Your task to perform on an android device: check out phone information Image 0: 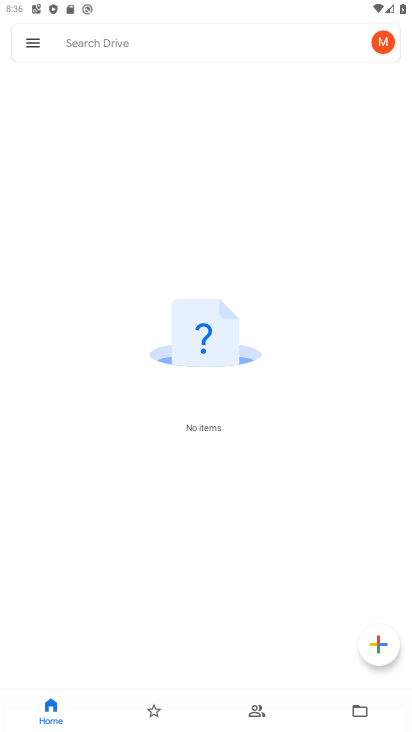
Step 0: drag from (134, 545) to (213, 302)
Your task to perform on an android device: check out phone information Image 1: 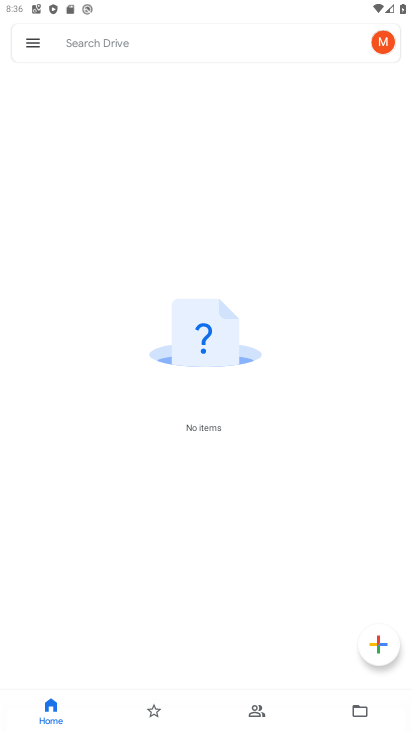
Step 1: press home button
Your task to perform on an android device: check out phone information Image 2: 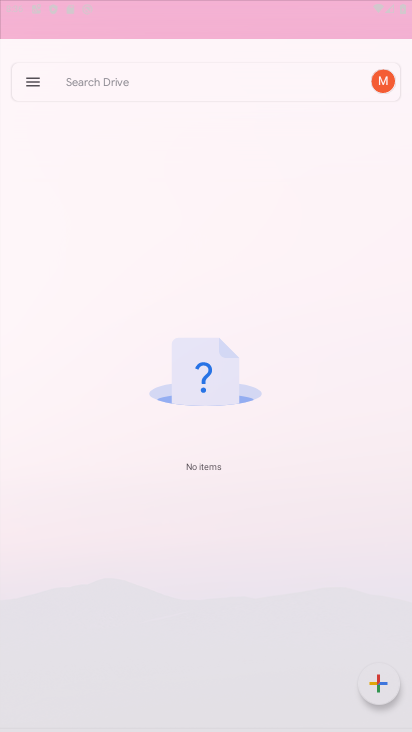
Step 2: drag from (250, 597) to (278, 310)
Your task to perform on an android device: check out phone information Image 3: 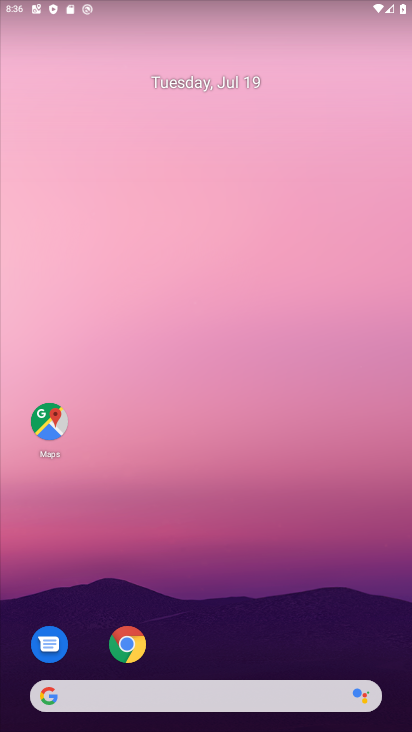
Step 3: drag from (189, 522) to (65, 29)
Your task to perform on an android device: check out phone information Image 4: 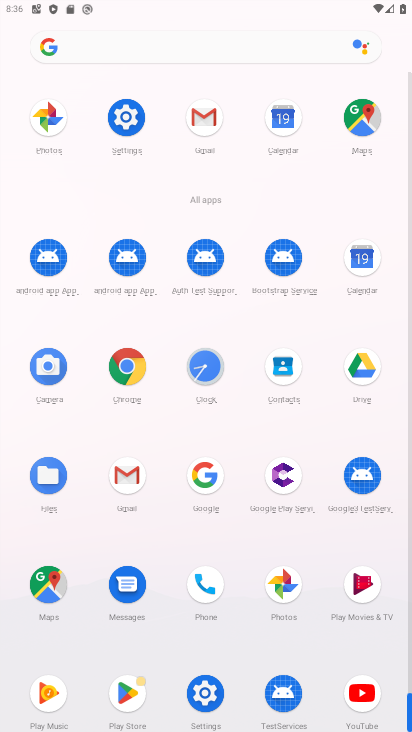
Step 4: click (124, 113)
Your task to perform on an android device: check out phone information Image 5: 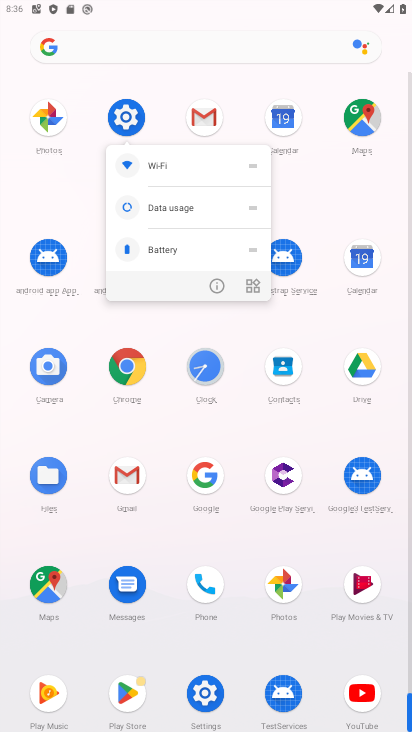
Step 5: click (206, 282)
Your task to perform on an android device: check out phone information Image 6: 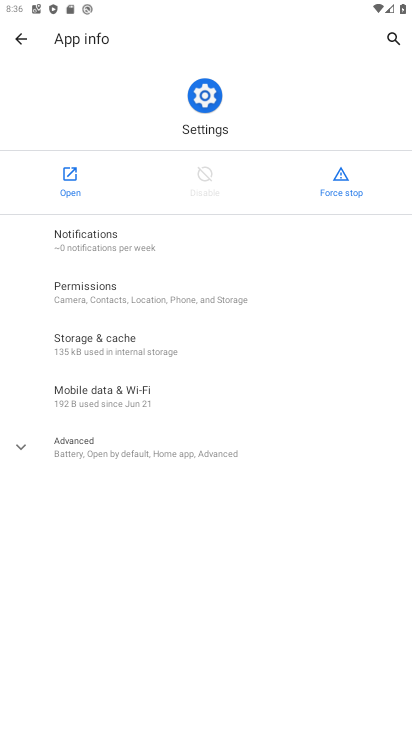
Step 6: click (53, 183)
Your task to perform on an android device: check out phone information Image 7: 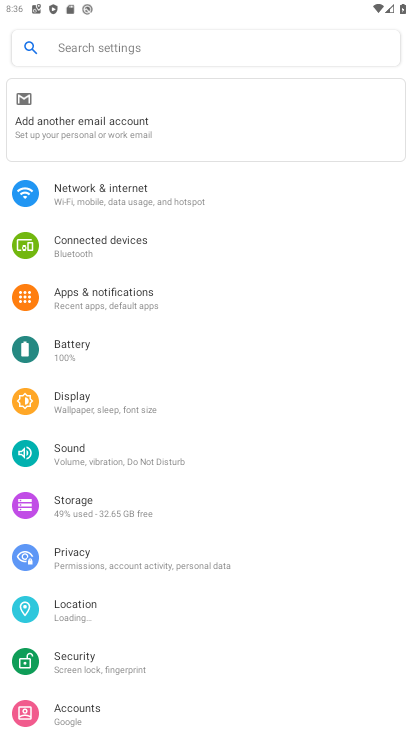
Step 7: drag from (169, 505) to (273, 194)
Your task to perform on an android device: check out phone information Image 8: 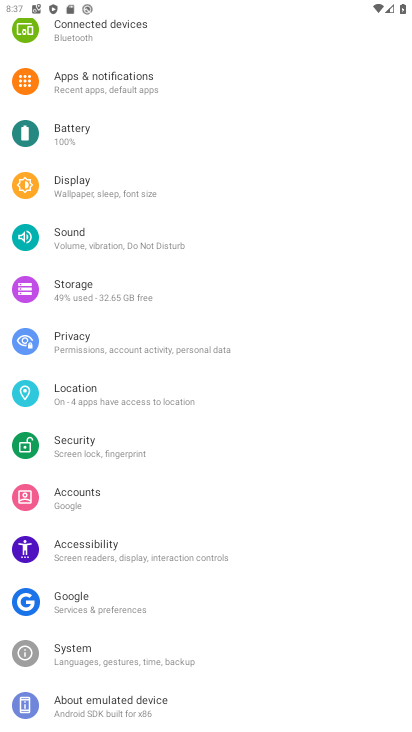
Step 8: click (55, 702)
Your task to perform on an android device: check out phone information Image 9: 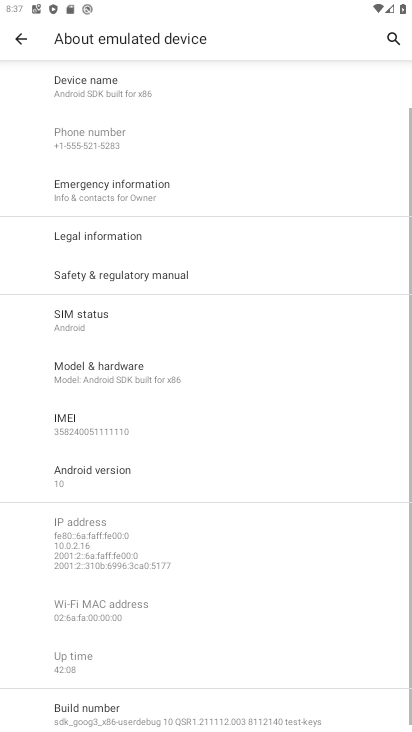
Step 9: task complete